Your task to perform on an android device: What's the weather going to be this weekend? Image 0: 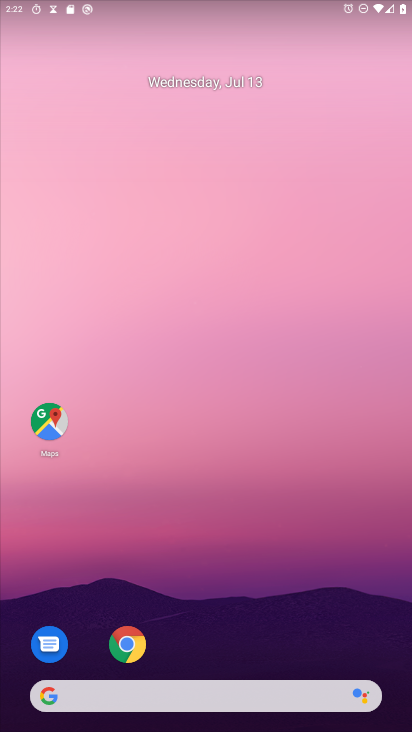
Step 0: click (139, 693)
Your task to perform on an android device: What's the weather going to be this weekend? Image 1: 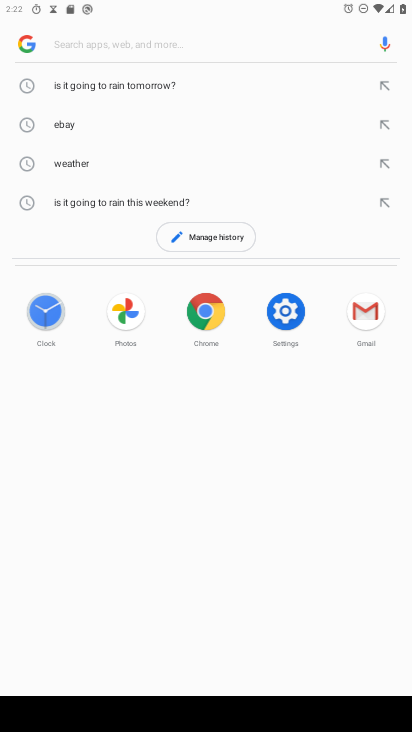
Step 1: type "What's the weather going to be this weekend?"
Your task to perform on an android device: What's the weather going to be this weekend? Image 2: 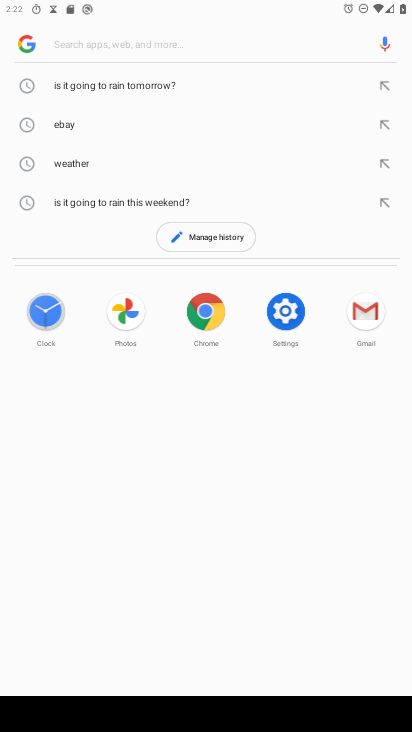
Step 2: click (93, 41)
Your task to perform on an android device: What's the weather going to be this weekend? Image 3: 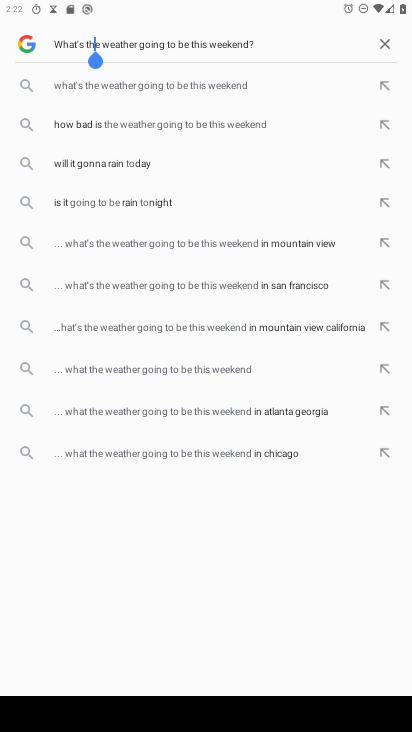
Step 3: click (107, 45)
Your task to perform on an android device: What's the weather going to be this weekend? Image 4: 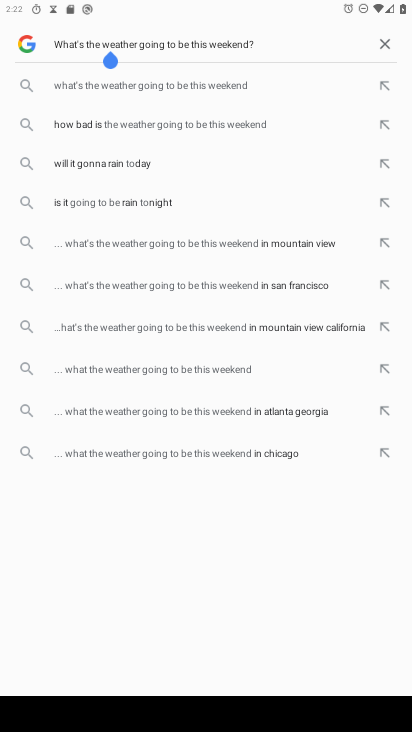
Step 4: press enter
Your task to perform on an android device: What's the weather going to be this weekend? Image 5: 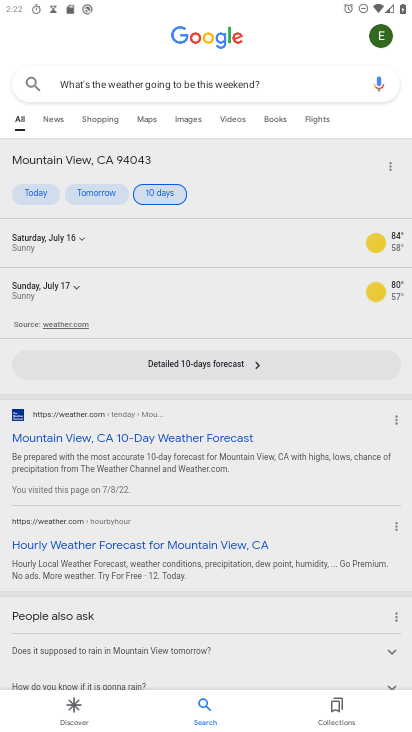
Step 5: task complete